Your task to perform on an android device: Go to eBay Image 0: 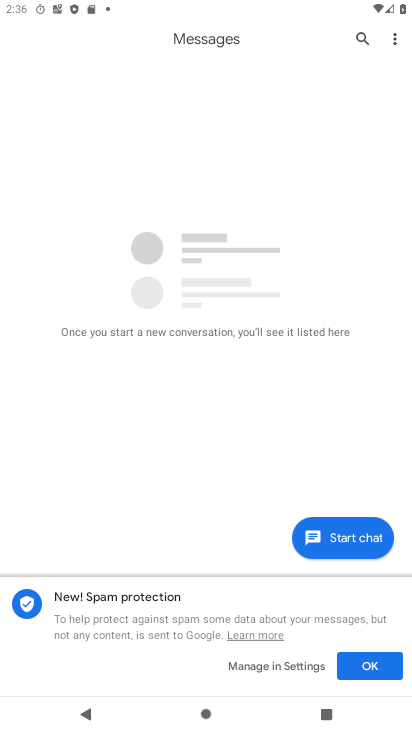
Step 0: press home button
Your task to perform on an android device: Go to eBay Image 1: 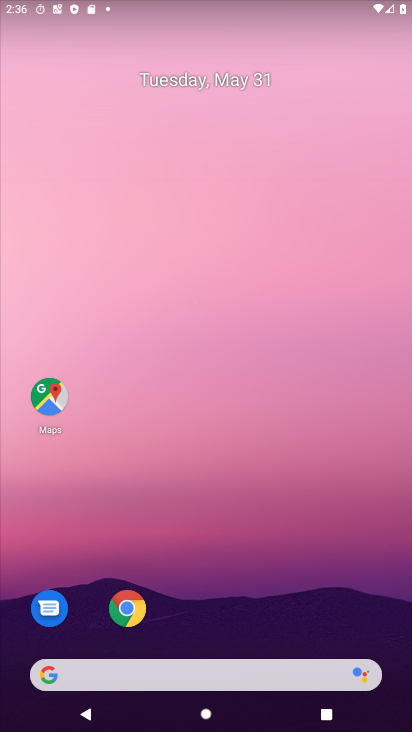
Step 1: click (134, 600)
Your task to perform on an android device: Go to eBay Image 2: 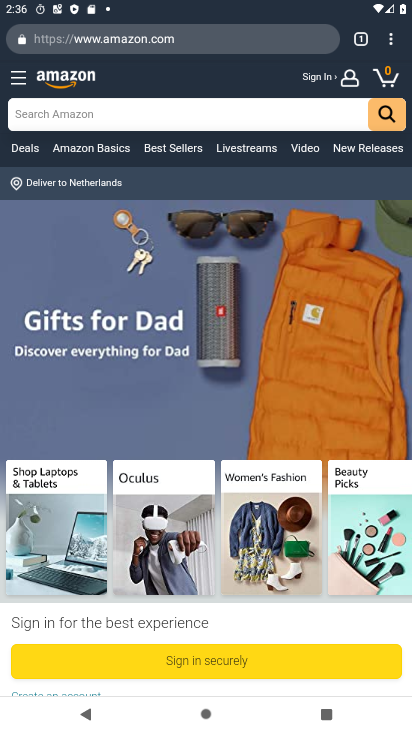
Step 2: click (144, 43)
Your task to perform on an android device: Go to eBay Image 3: 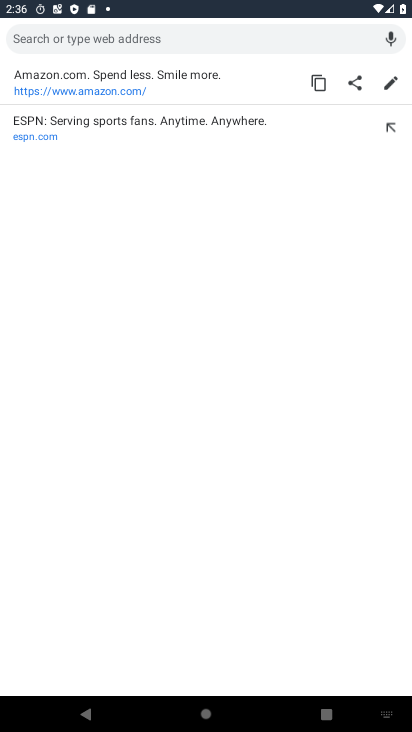
Step 3: type "eBay"
Your task to perform on an android device: Go to eBay Image 4: 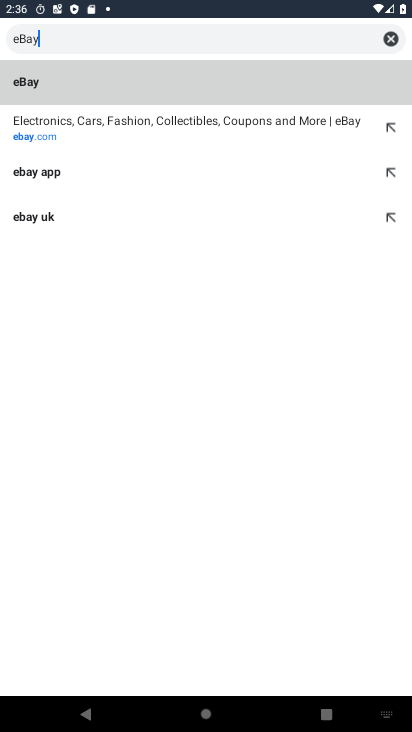
Step 4: click (60, 118)
Your task to perform on an android device: Go to eBay Image 5: 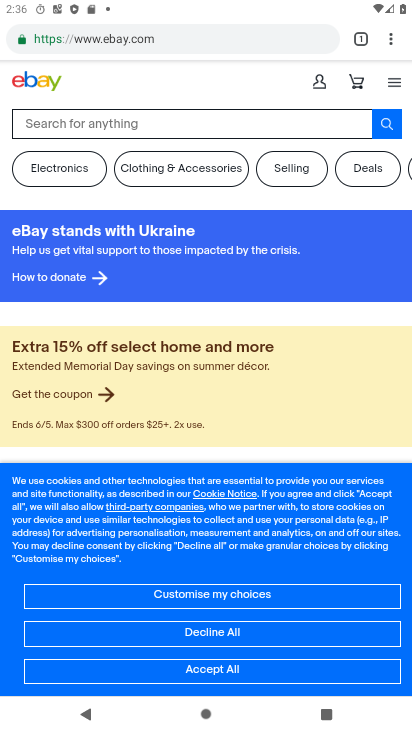
Step 5: task complete